Your task to perform on an android device: Turn off the flashlight Image 0: 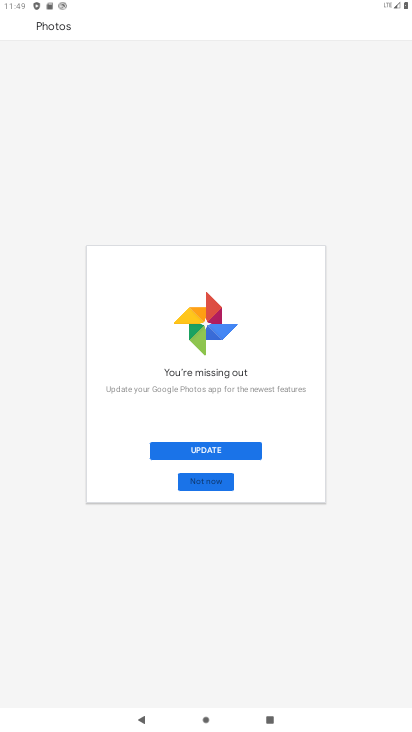
Step 0: press back button
Your task to perform on an android device: Turn off the flashlight Image 1: 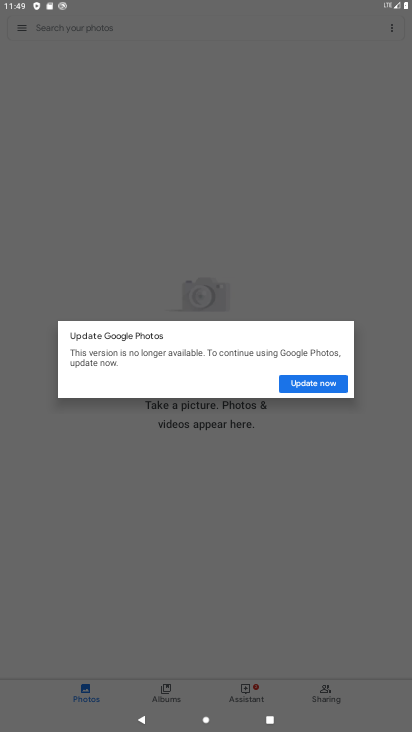
Step 1: press home button
Your task to perform on an android device: Turn off the flashlight Image 2: 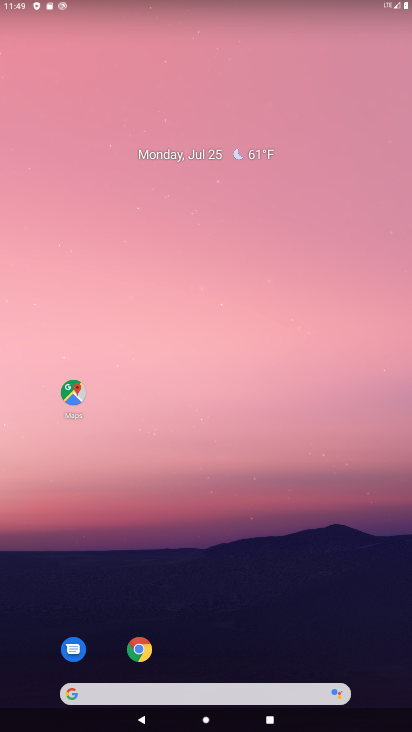
Step 2: drag from (198, 676) to (166, 26)
Your task to perform on an android device: Turn off the flashlight Image 3: 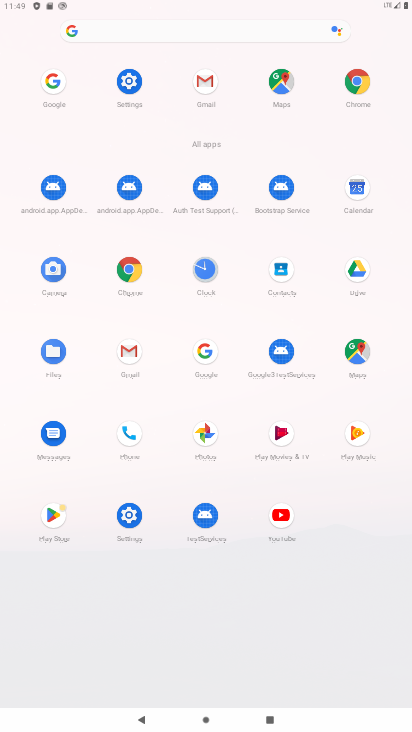
Step 3: click (128, 80)
Your task to perform on an android device: Turn off the flashlight Image 4: 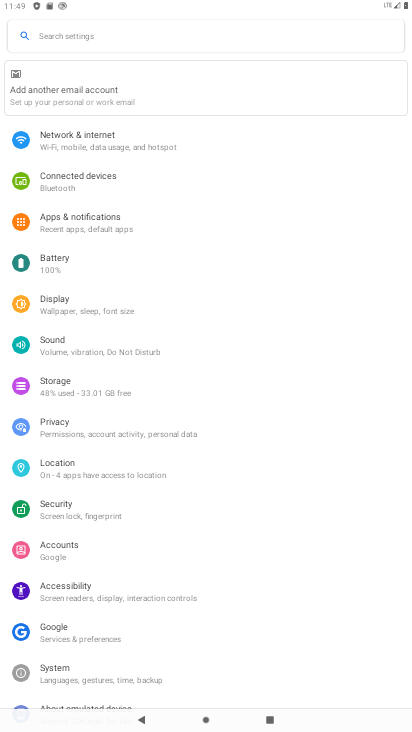
Step 4: task complete